Your task to perform on an android device: Go to Yahoo.com Image 0: 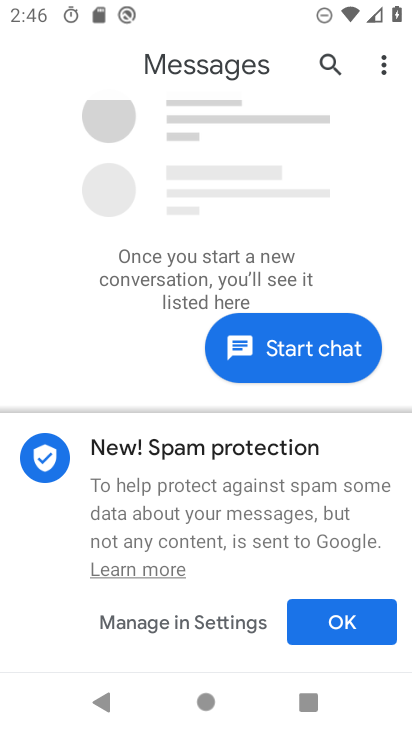
Step 0: press home button
Your task to perform on an android device: Go to Yahoo.com Image 1: 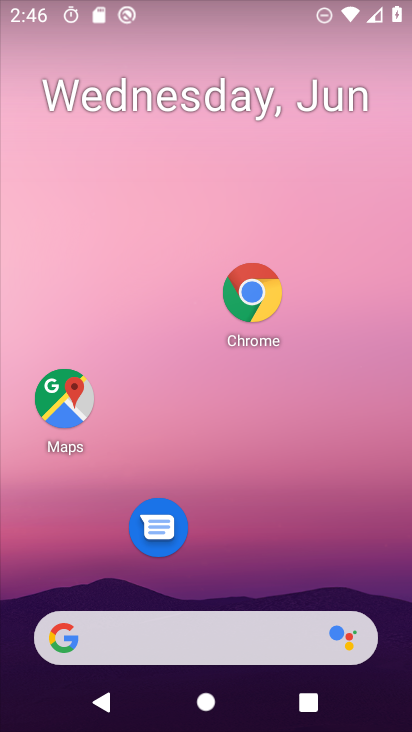
Step 1: drag from (236, 472) to (229, 256)
Your task to perform on an android device: Go to Yahoo.com Image 2: 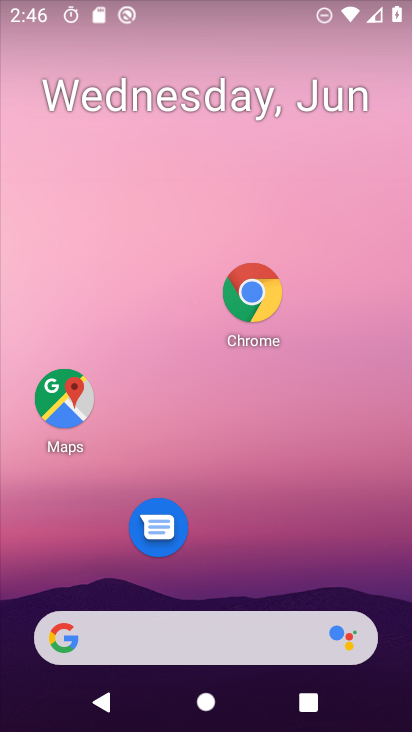
Step 2: click (244, 325)
Your task to perform on an android device: Go to Yahoo.com Image 3: 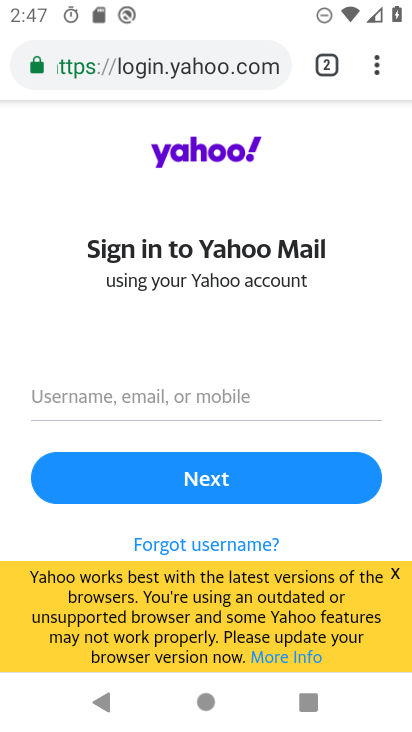
Step 3: task complete